Your task to perform on an android device: set an alarm Image 0: 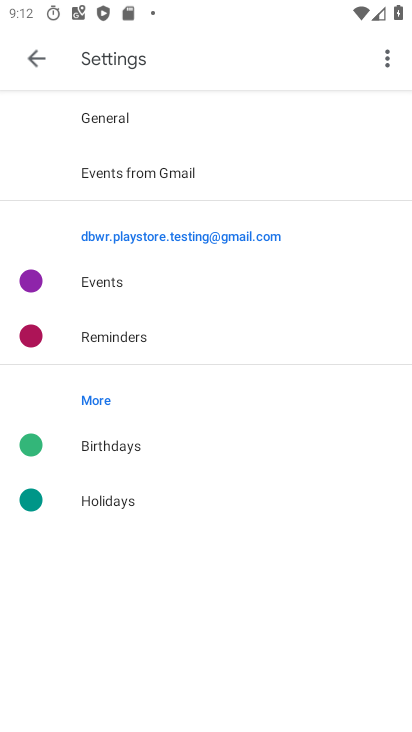
Step 0: press home button
Your task to perform on an android device: set an alarm Image 1: 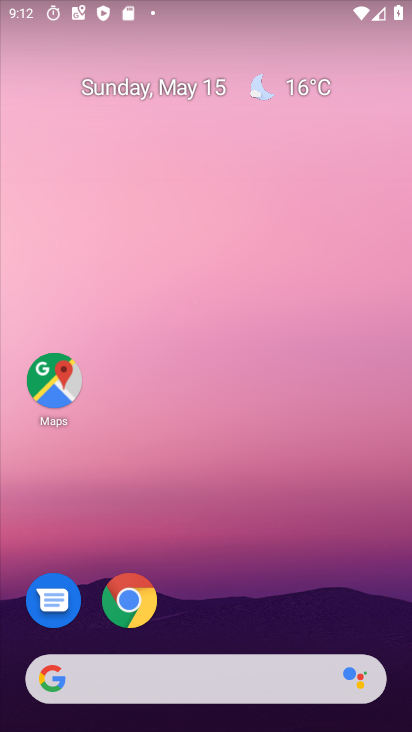
Step 1: drag from (234, 604) to (285, 77)
Your task to perform on an android device: set an alarm Image 2: 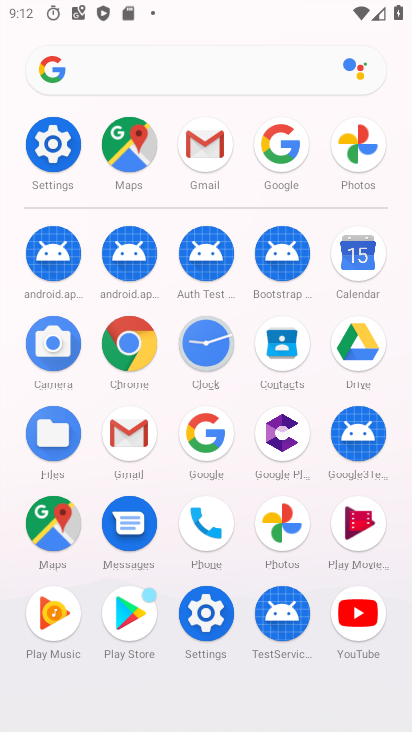
Step 2: click (212, 340)
Your task to perform on an android device: set an alarm Image 3: 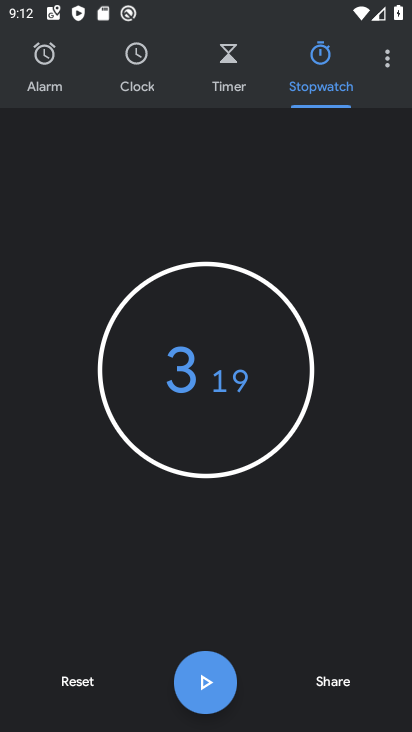
Step 3: click (31, 59)
Your task to perform on an android device: set an alarm Image 4: 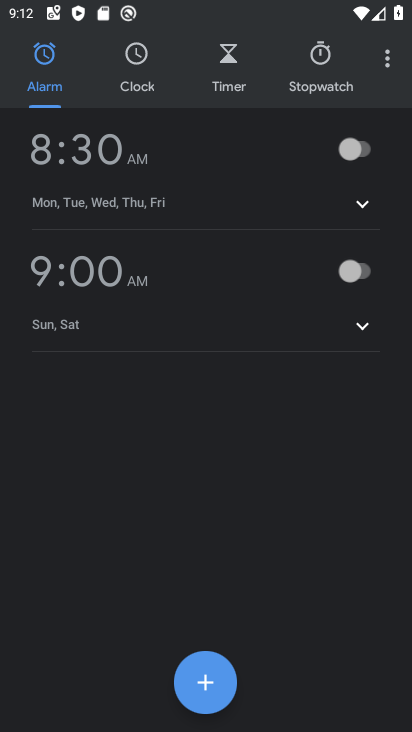
Step 4: click (354, 142)
Your task to perform on an android device: set an alarm Image 5: 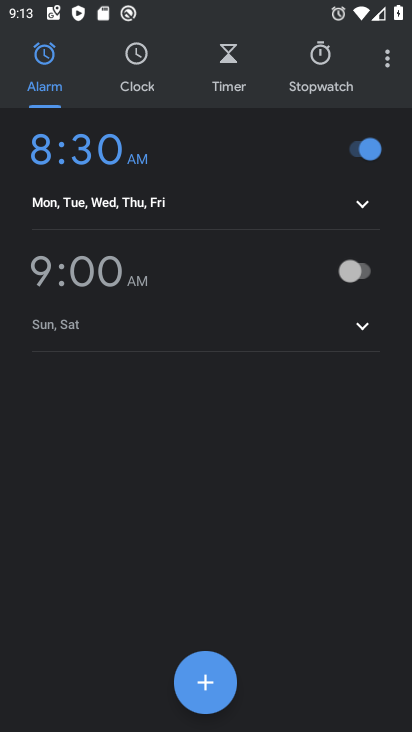
Step 5: task complete